Your task to perform on an android device: add a contact in the contacts app Image 0: 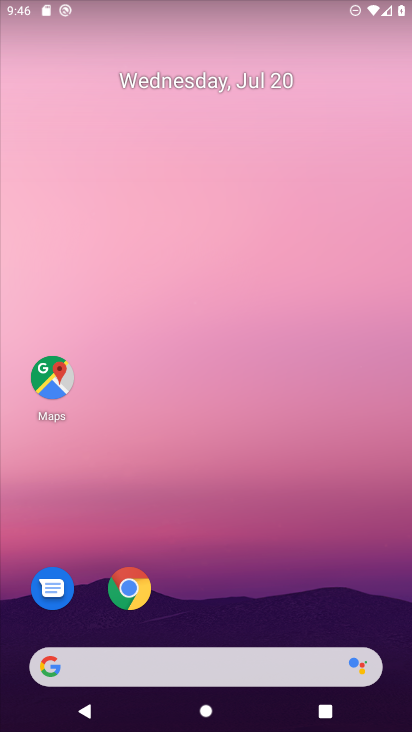
Step 0: drag from (197, 601) to (248, 131)
Your task to perform on an android device: add a contact in the contacts app Image 1: 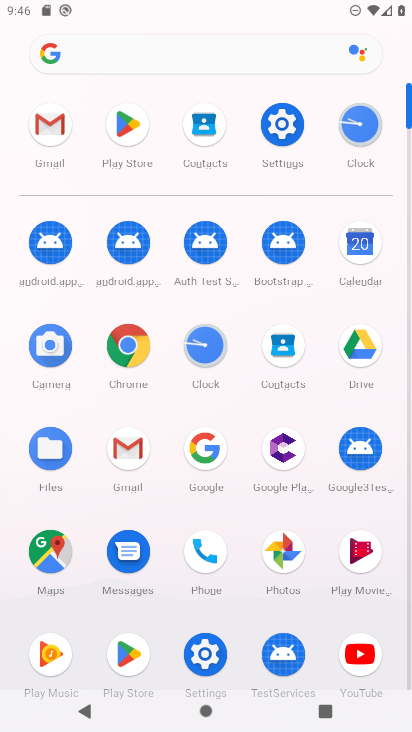
Step 1: click (290, 338)
Your task to perform on an android device: add a contact in the contacts app Image 2: 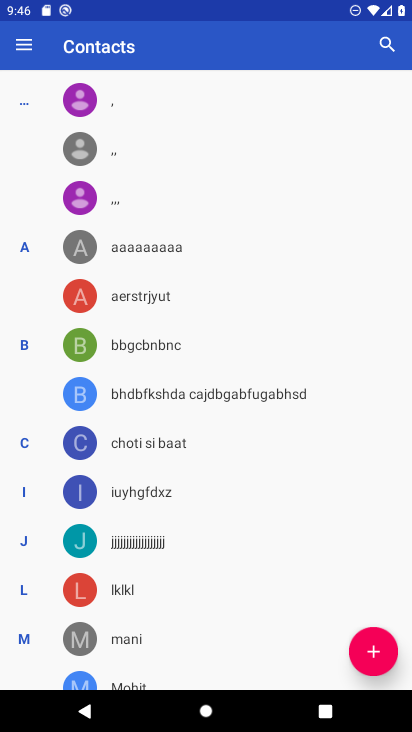
Step 2: click (376, 654)
Your task to perform on an android device: add a contact in the contacts app Image 3: 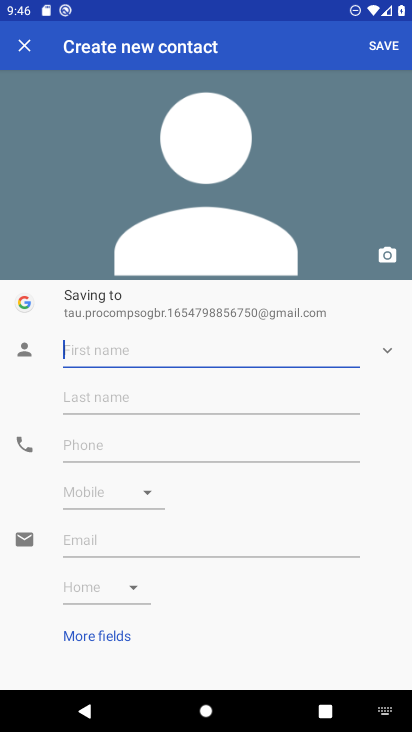
Step 3: type "okijhgvfcxssdfg"
Your task to perform on an android device: add a contact in the contacts app Image 4: 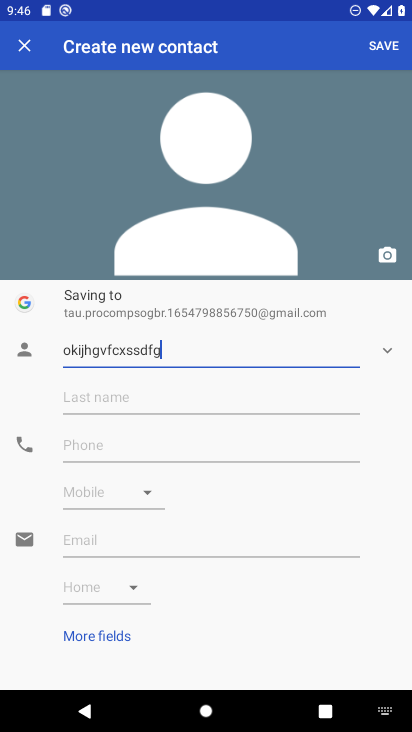
Step 4: click (170, 435)
Your task to perform on an android device: add a contact in the contacts app Image 5: 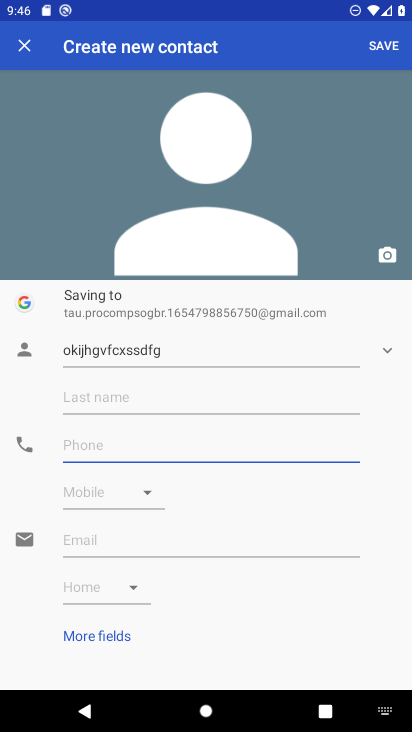
Step 5: type "123456789876"
Your task to perform on an android device: add a contact in the contacts app Image 6: 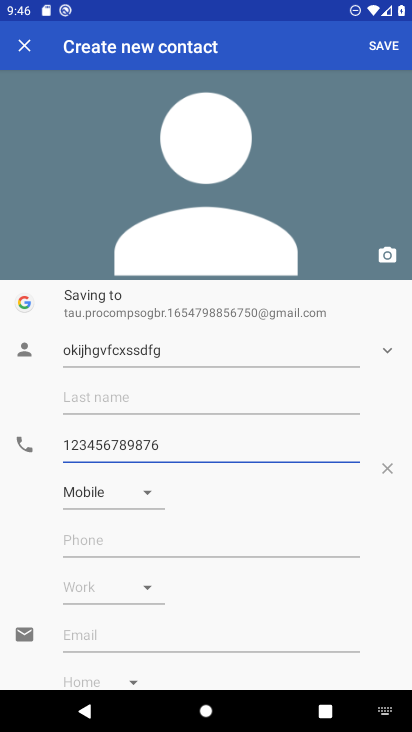
Step 6: click (385, 51)
Your task to perform on an android device: add a contact in the contacts app Image 7: 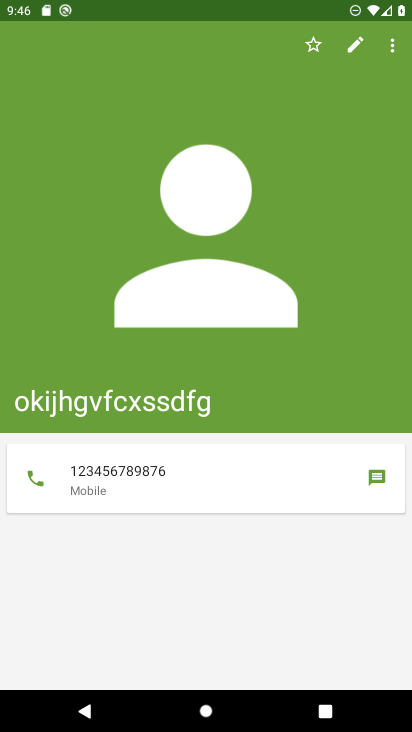
Step 7: task complete